Your task to perform on an android device: Open Amazon Image 0: 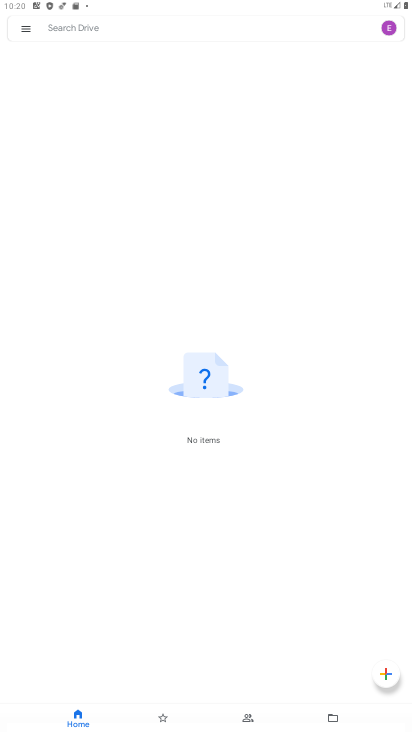
Step 0: press home button
Your task to perform on an android device: Open Amazon Image 1: 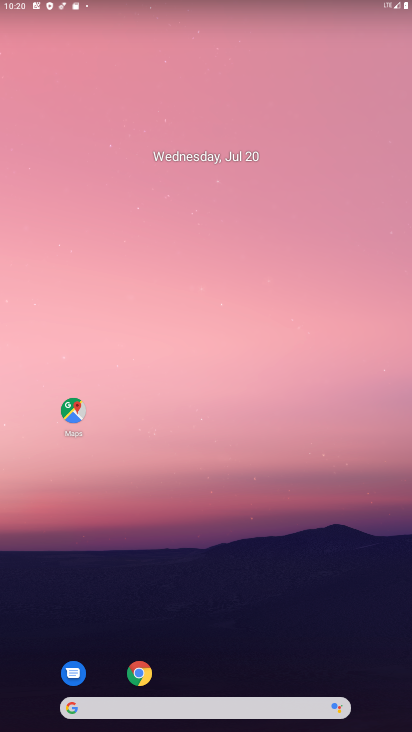
Step 1: click (140, 675)
Your task to perform on an android device: Open Amazon Image 2: 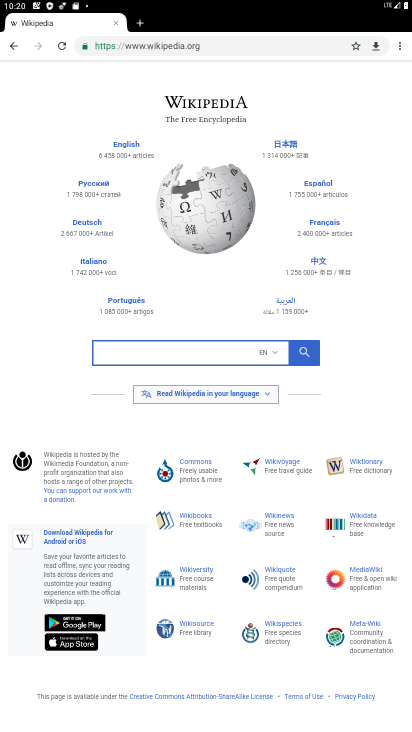
Step 2: click (271, 45)
Your task to perform on an android device: Open Amazon Image 3: 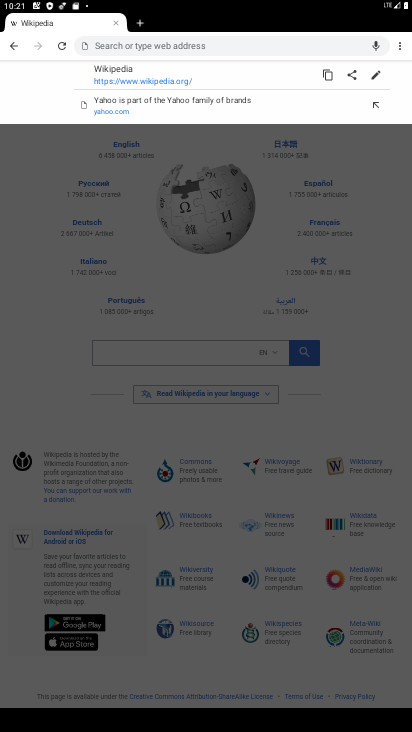
Step 3: type "Amazon"
Your task to perform on an android device: Open Amazon Image 4: 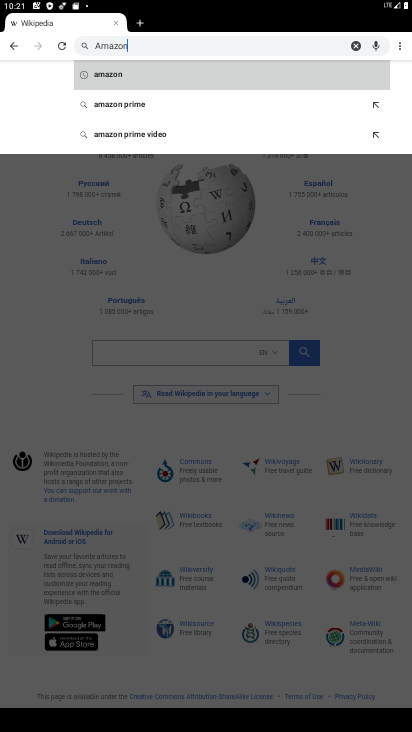
Step 4: click (108, 73)
Your task to perform on an android device: Open Amazon Image 5: 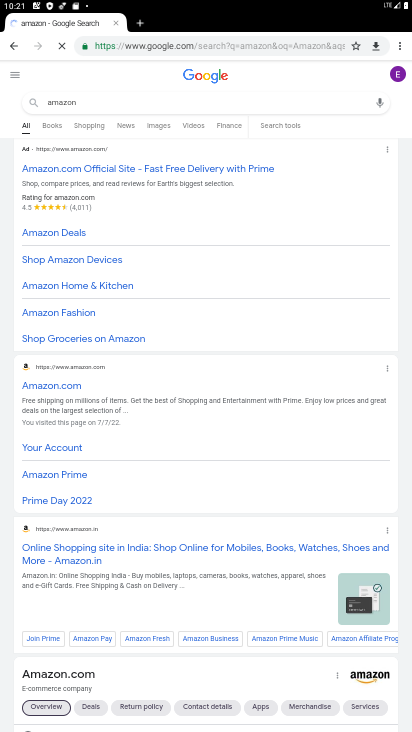
Step 5: click (69, 385)
Your task to perform on an android device: Open Amazon Image 6: 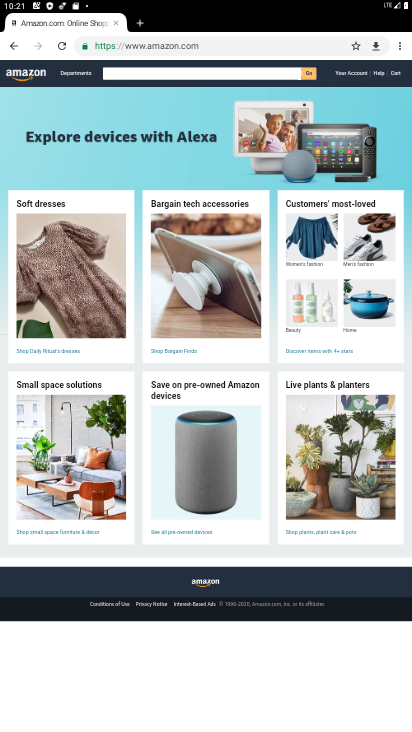
Step 6: task complete